Your task to perform on an android device: empty trash in google photos Image 0: 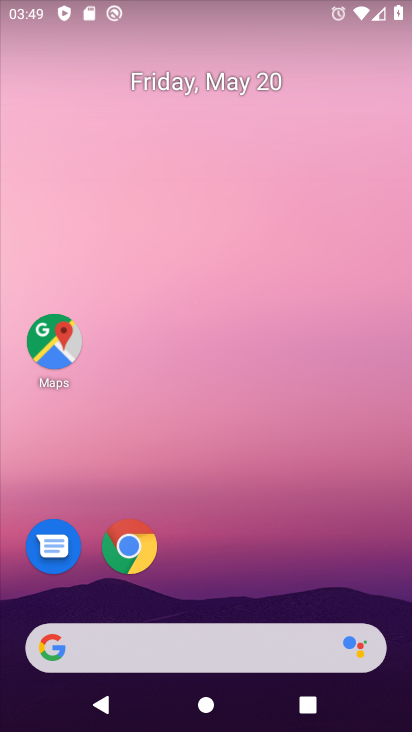
Step 0: drag from (255, 586) to (290, 177)
Your task to perform on an android device: empty trash in google photos Image 1: 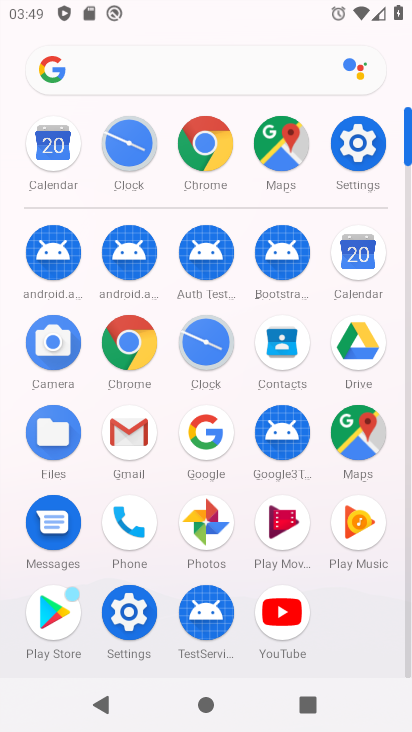
Step 1: click (208, 539)
Your task to perform on an android device: empty trash in google photos Image 2: 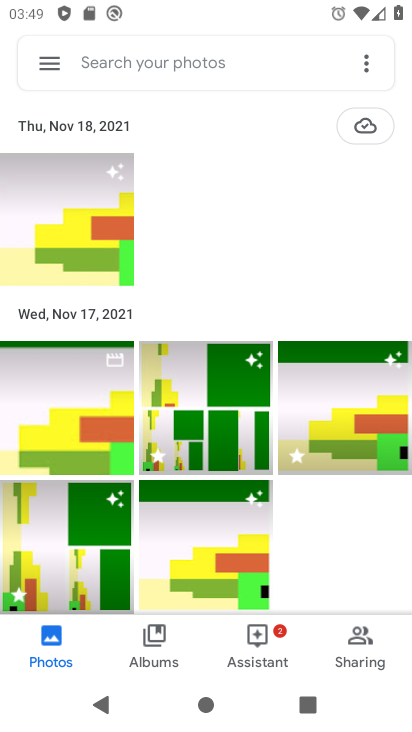
Step 2: drag from (369, 56) to (203, 159)
Your task to perform on an android device: empty trash in google photos Image 3: 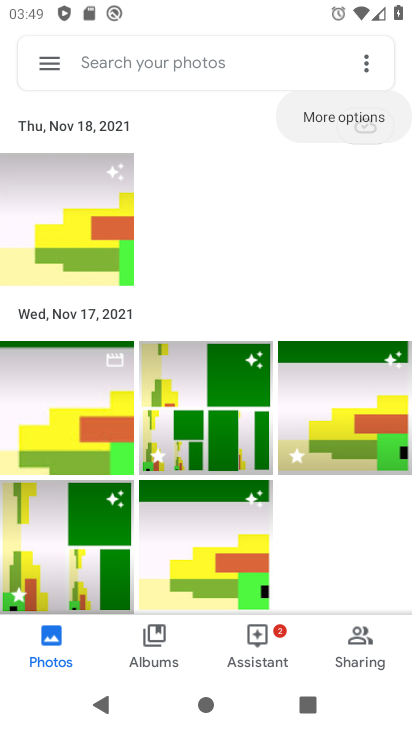
Step 3: click (42, 63)
Your task to perform on an android device: empty trash in google photos Image 4: 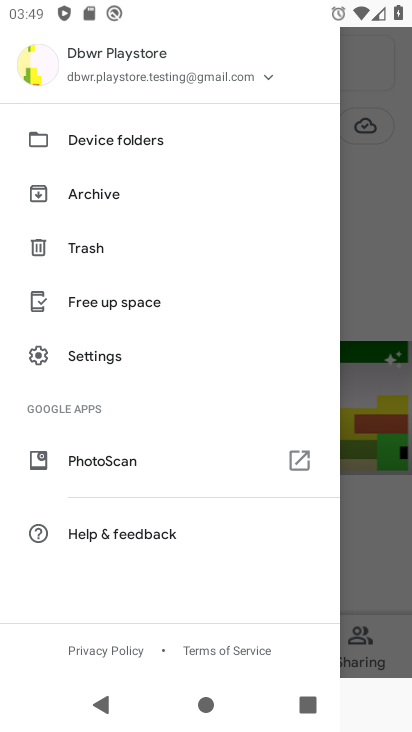
Step 4: click (92, 239)
Your task to perform on an android device: empty trash in google photos Image 5: 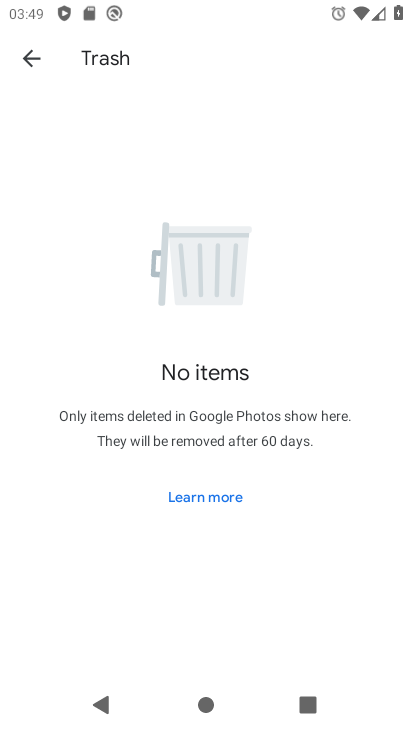
Step 5: task complete